Your task to perform on an android device: Open ESPN.com Image 0: 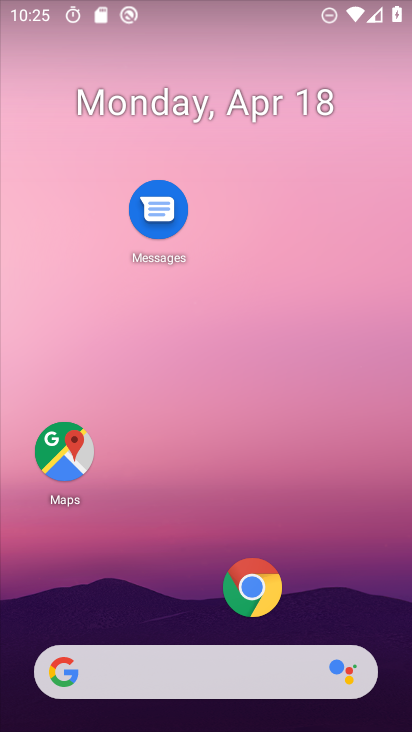
Step 0: click (257, 594)
Your task to perform on an android device: Open ESPN.com Image 1: 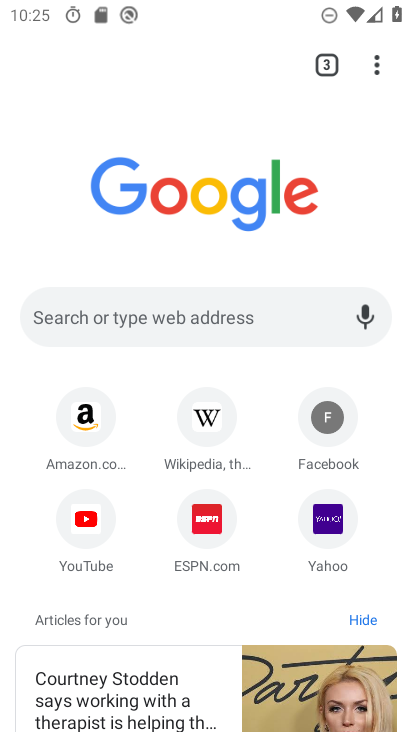
Step 1: click (208, 540)
Your task to perform on an android device: Open ESPN.com Image 2: 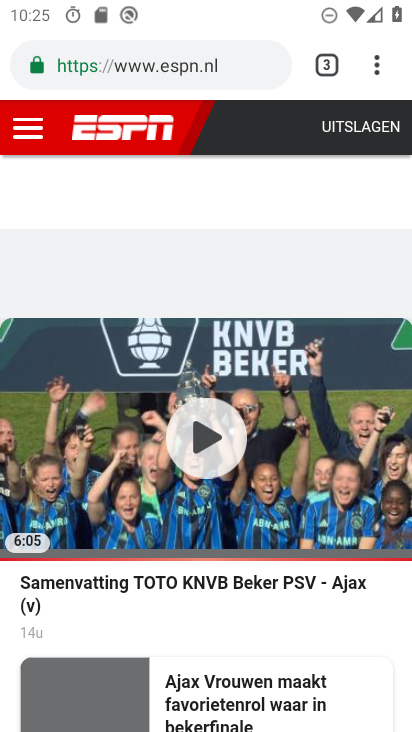
Step 2: task complete